Your task to perform on an android device: open app "Spotify" (install if not already installed) Image 0: 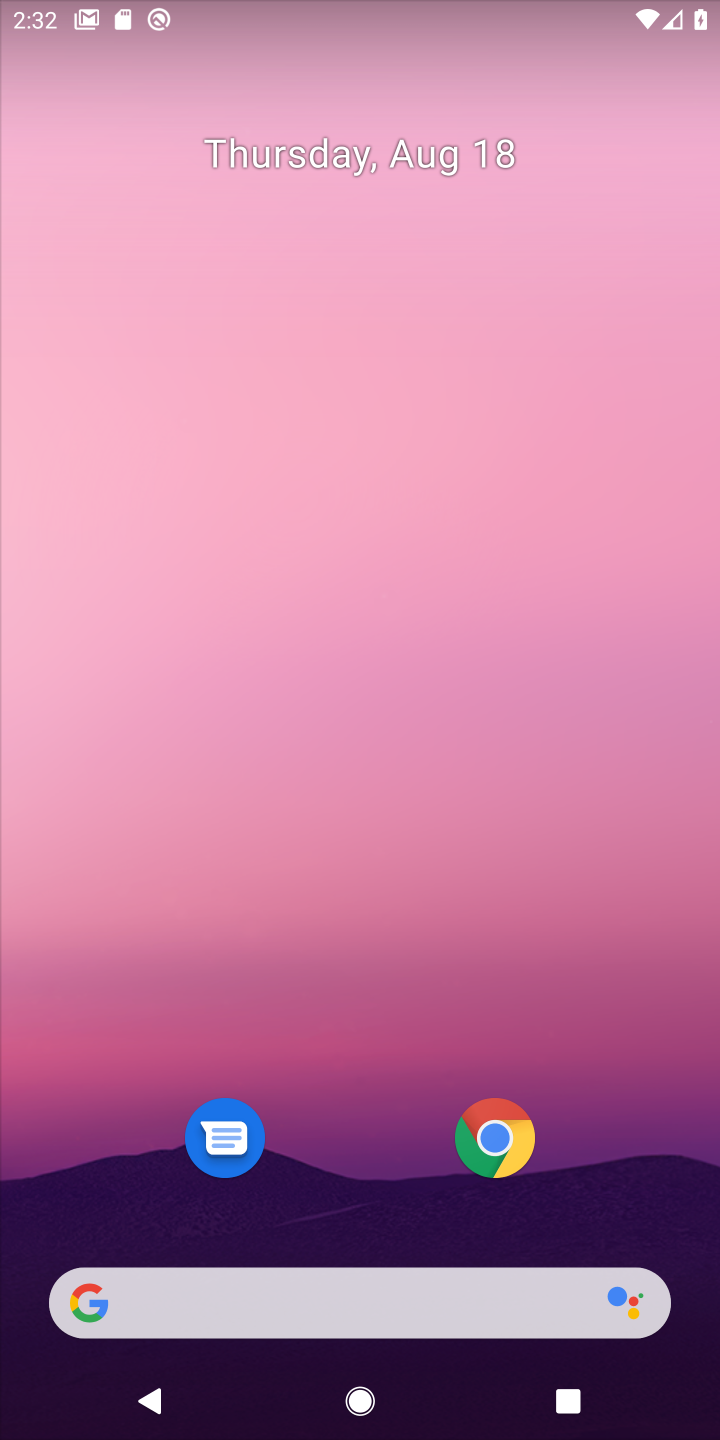
Step 0: drag from (451, 1152) to (708, 878)
Your task to perform on an android device: open app "Spotify" (install if not already installed) Image 1: 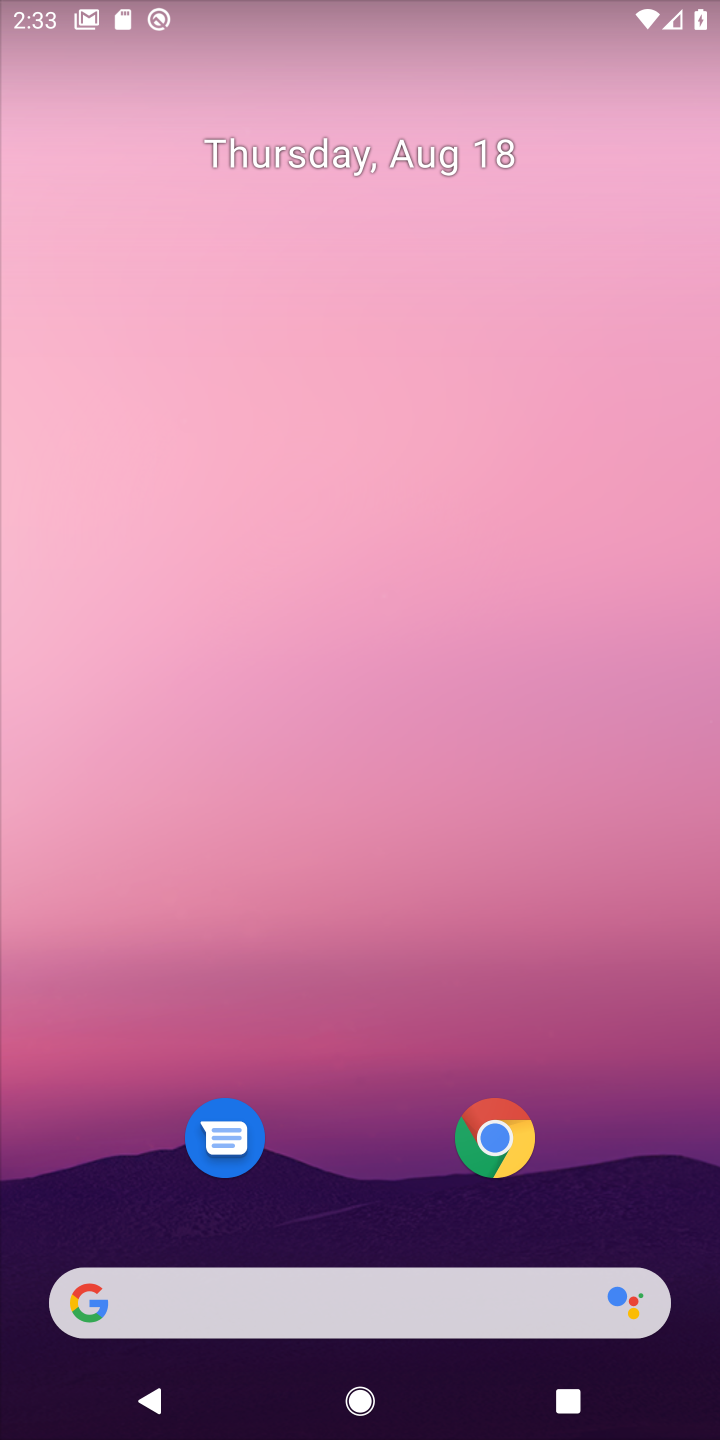
Step 1: drag from (308, 979) to (401, 65)
Your task to perform on an android device: open app "Spotify" (install if not already installed) Image 2: 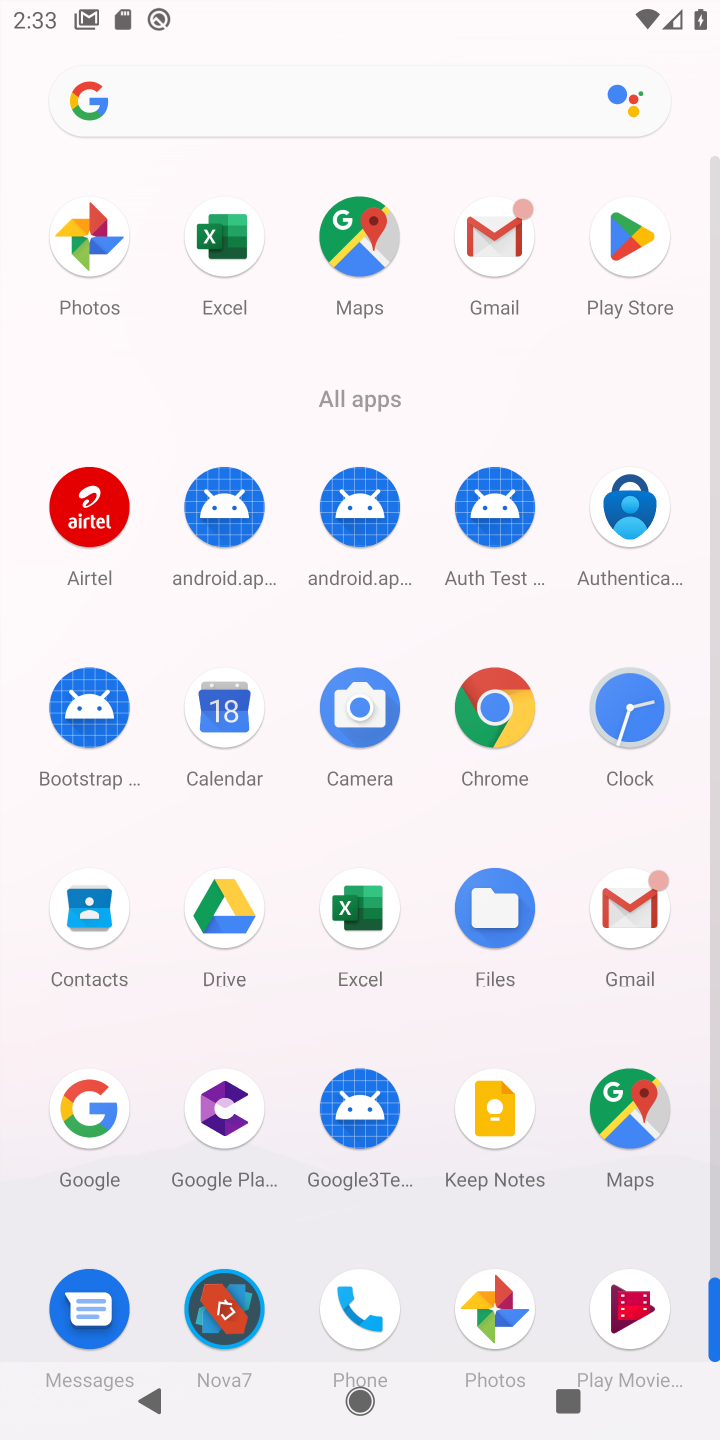
Step 2: click (587, 275)
Your task to perform on an android device: open app "Spotify" (install if not already installed) Image 3: 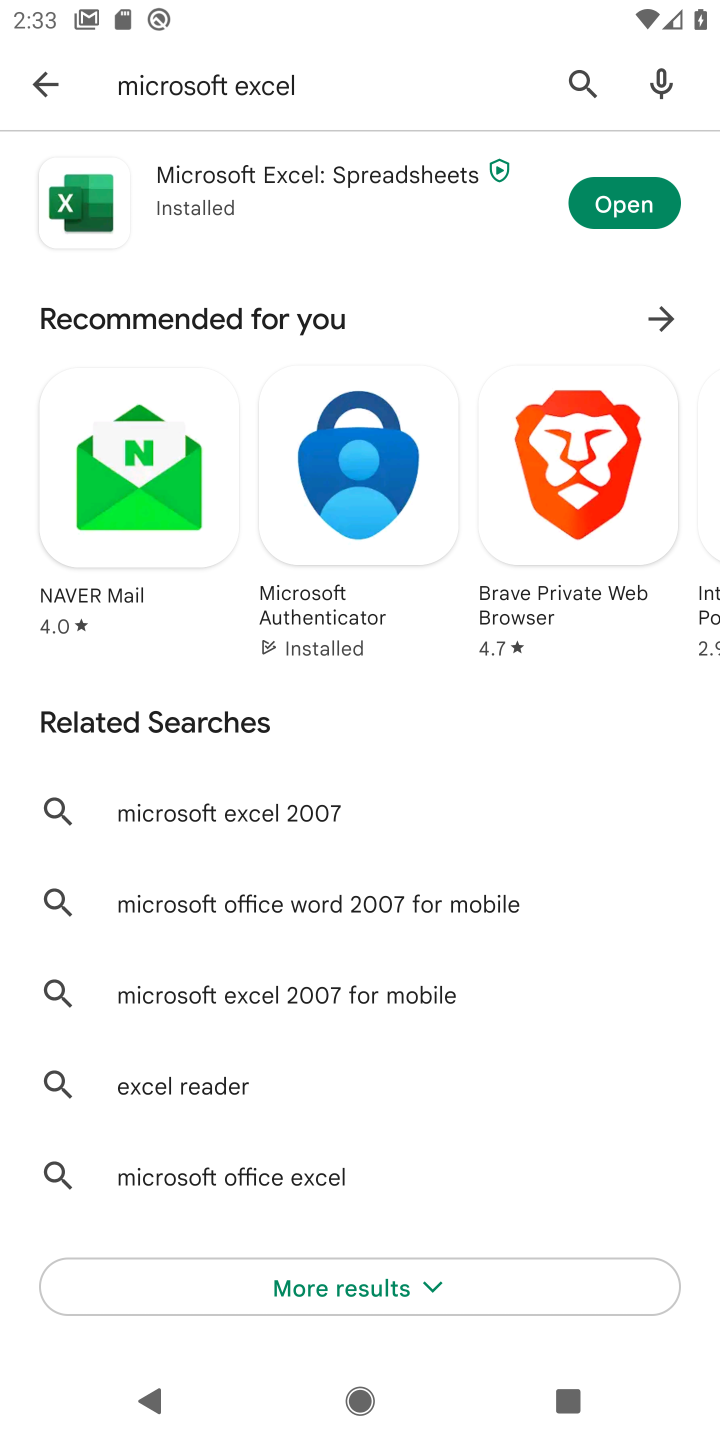
Step 3: click (62, 92)
Your task to perform on an android device: open app "Spotify" (install if not already installed) Image 4: 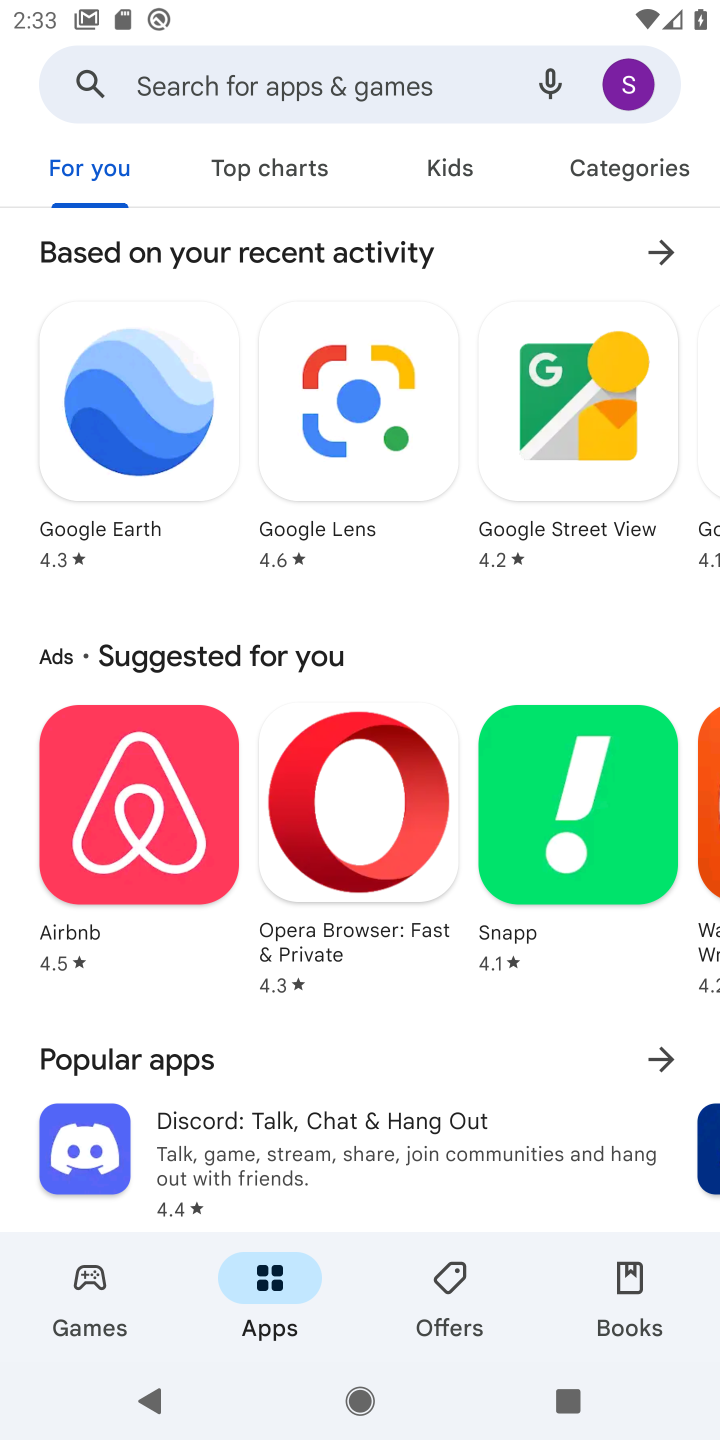
Step 4: click (340, 76)
Your task to perform on an android device: open app "Spotify" (install if not already installed) Image 5: 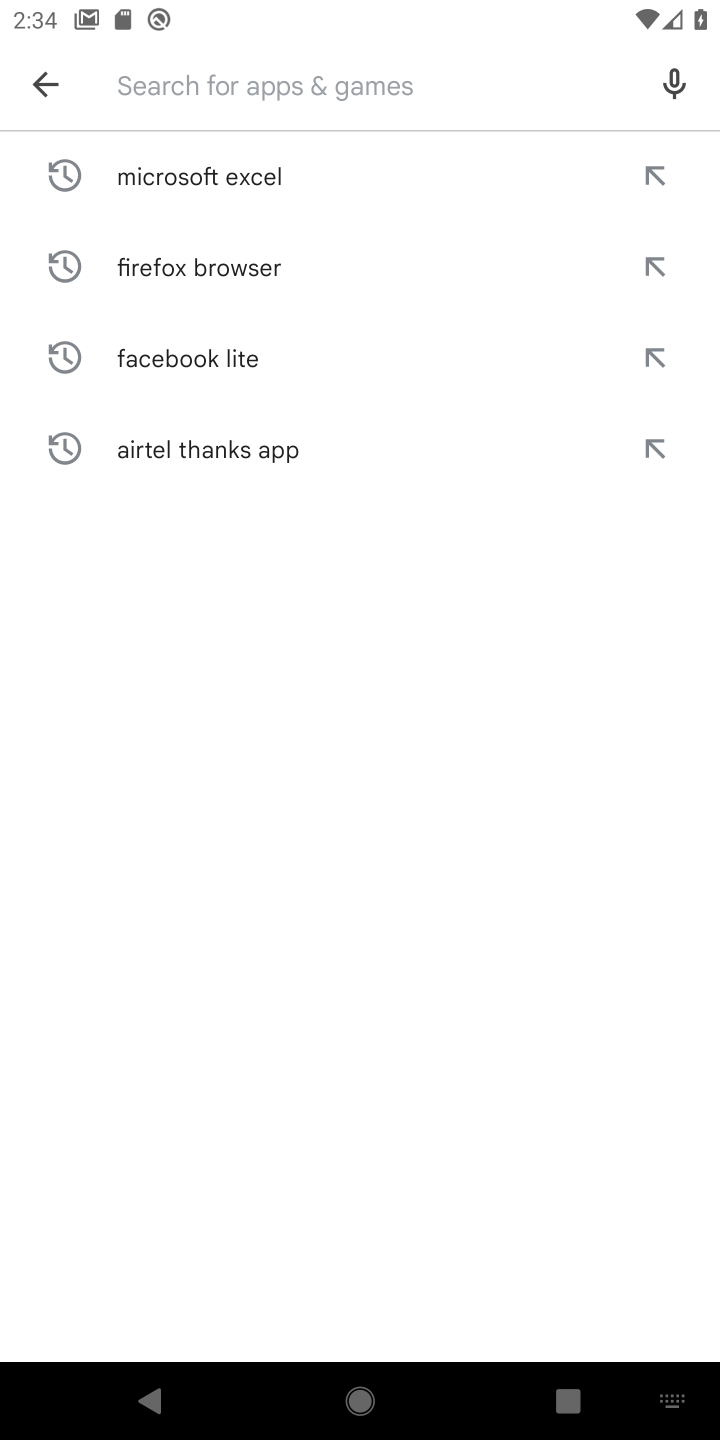
Step 5: type "Spotify"
Your task to perform on an android device: open app "Spotify" (install if not already installed) Image 6: 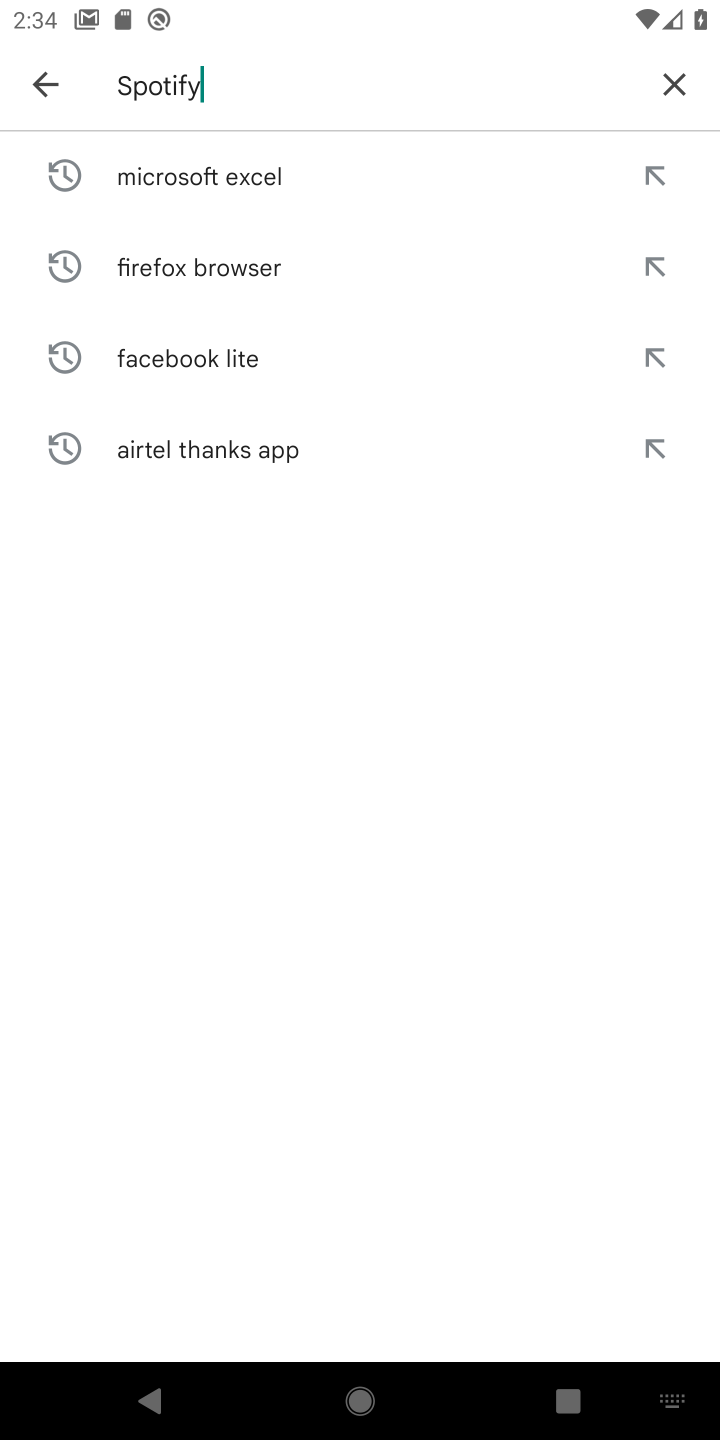
Step 6: type ""
Your task to perform on an android device: open app "Spotify" (install if not already installed) Image 7: 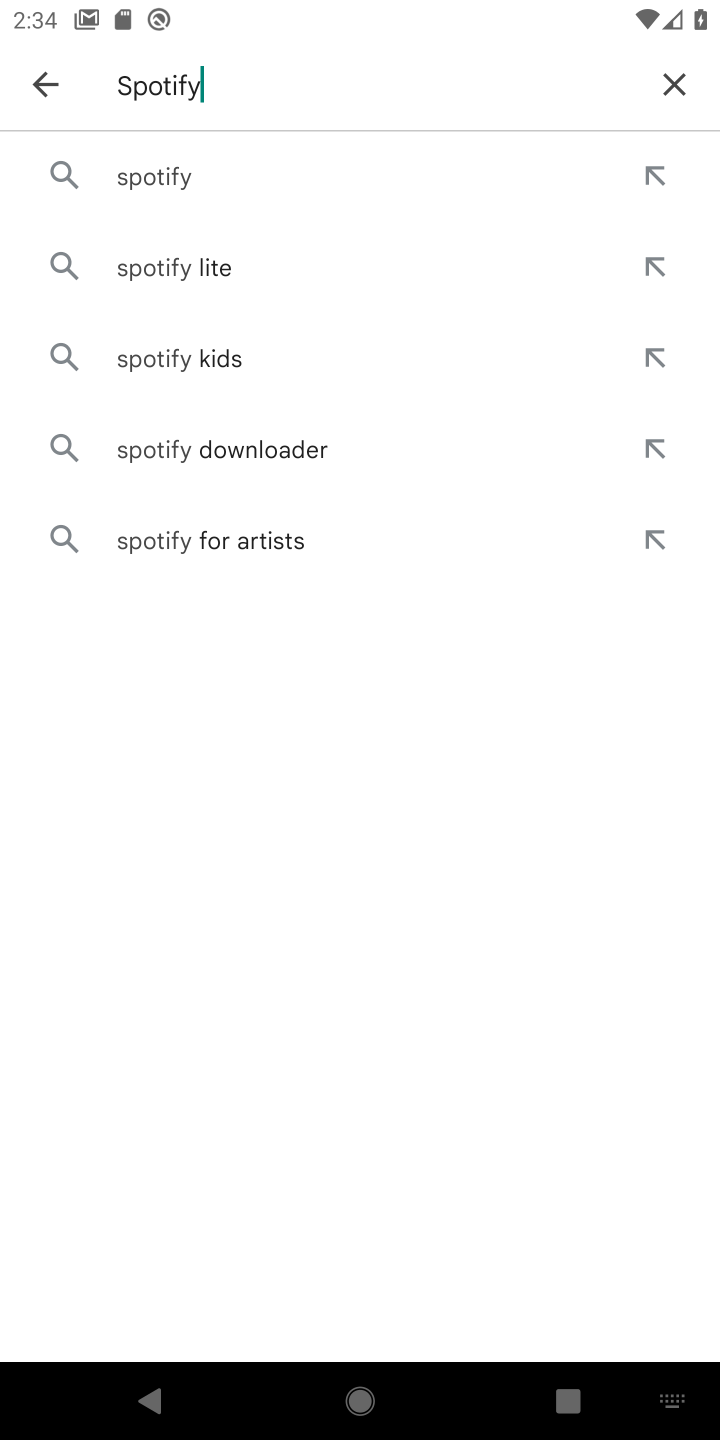
Step 7: click (293, 189)
Your task to perform on an android device: open app "Spotify" (install if not already installed) Image 8: 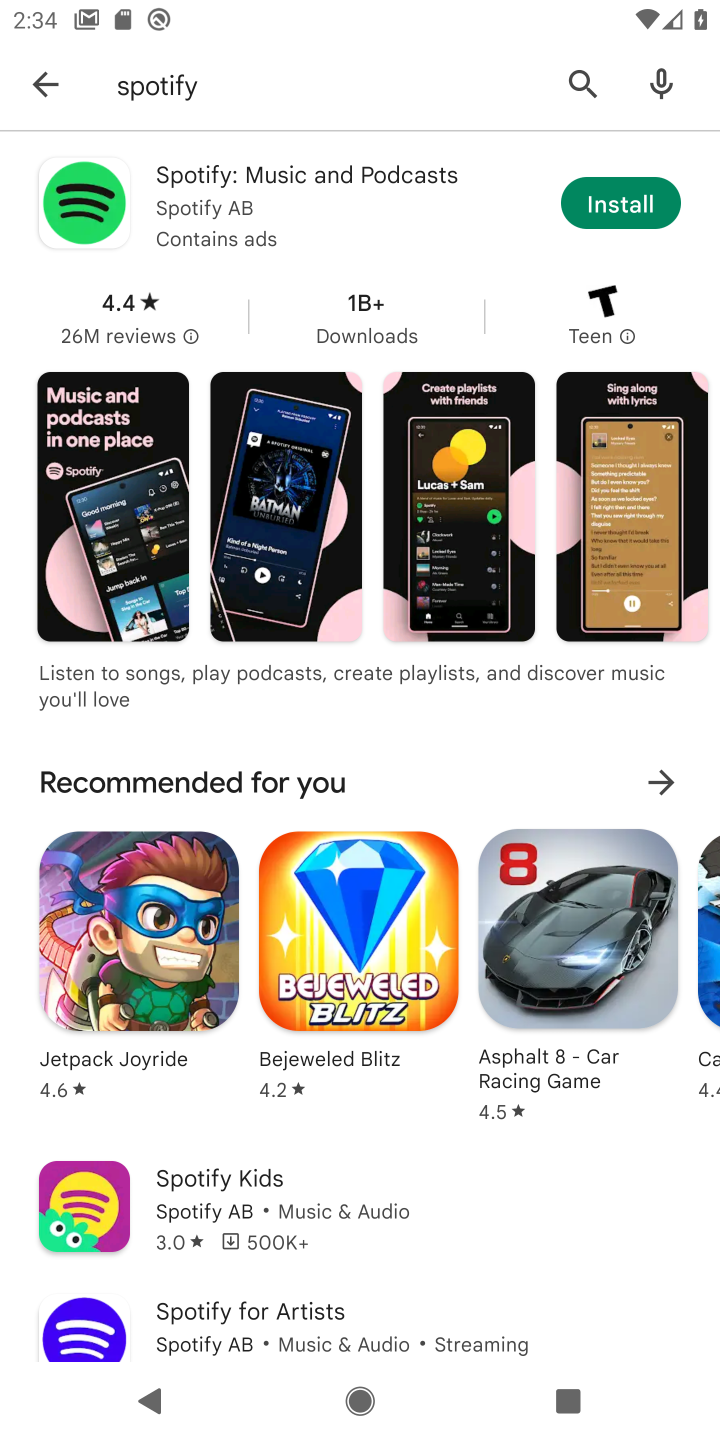
Step 8: click (609, 207)
Your task to perform on an android device: open app "Spotify" (install if not already installed) Image 9: 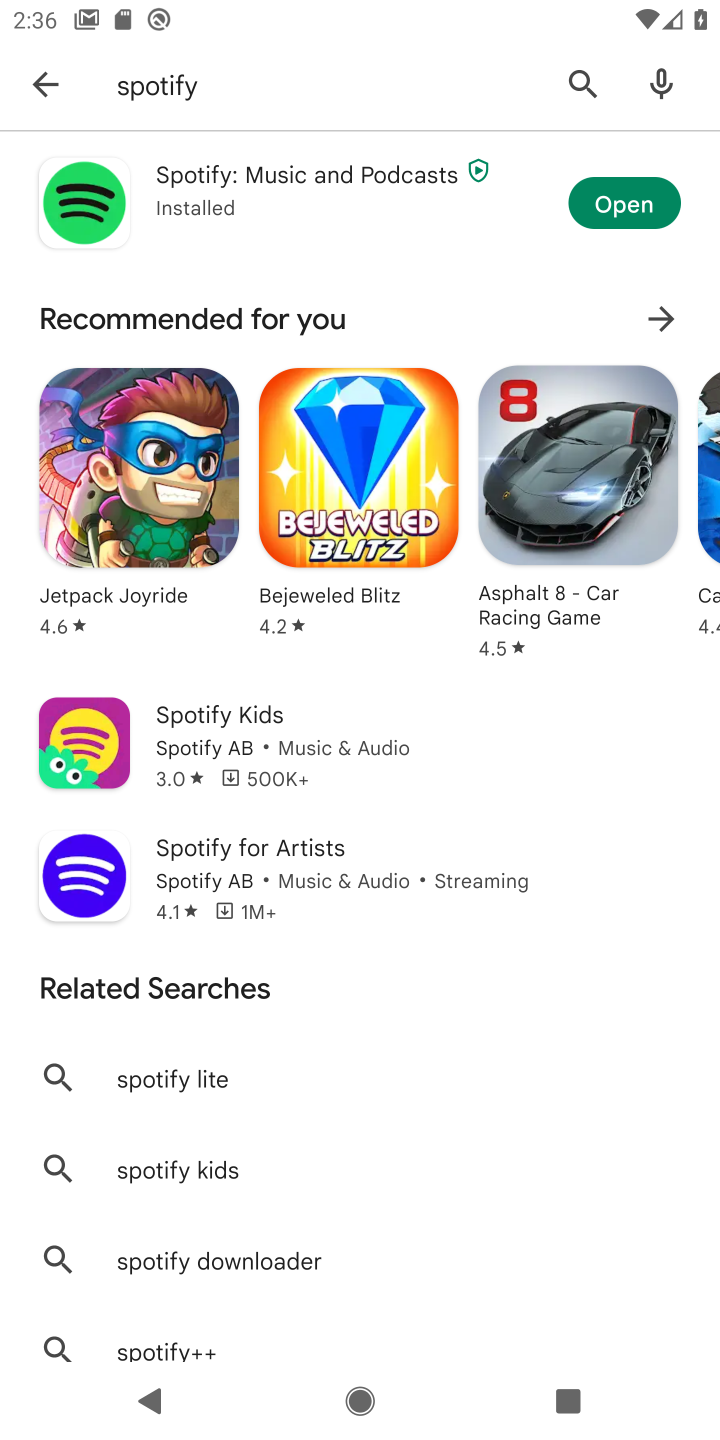
Step 9: click (645, 208)
Your task to perform on an android device: open app "Spotify" (install if not already installed) Image 10: 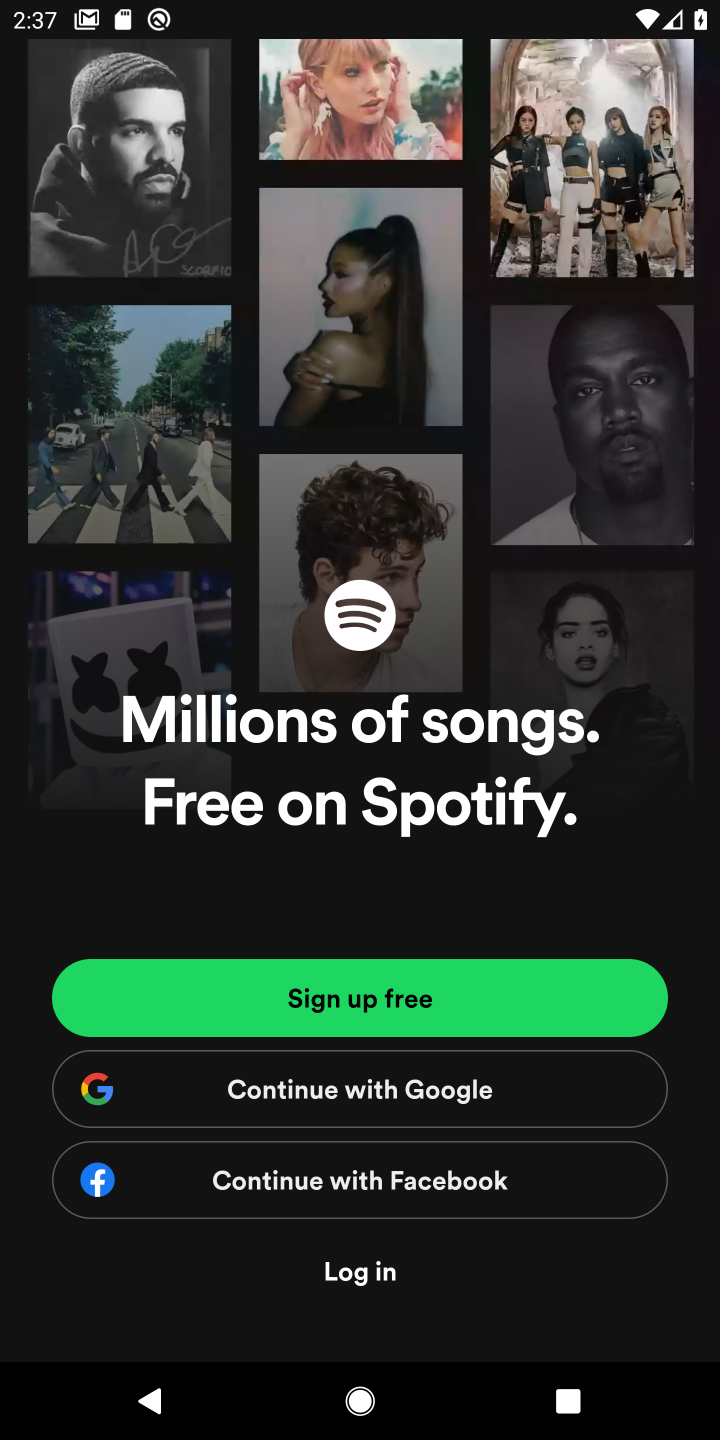
Step 10: task complete